Your task to perform on an android device: Open network settings Image 0: 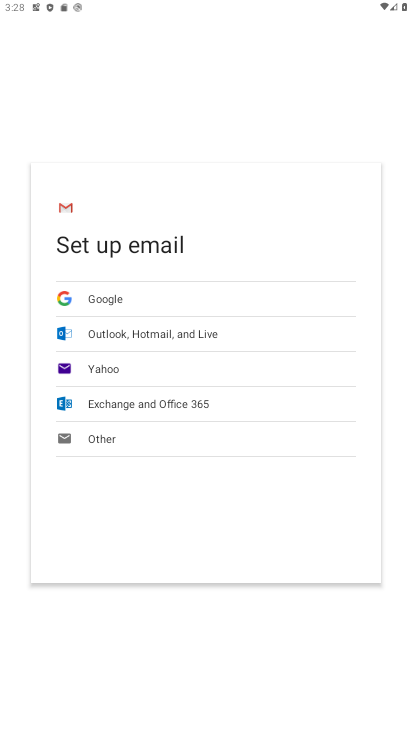
Step 0: press home button
Your task to perform on an android device: Open network settings Image 1: 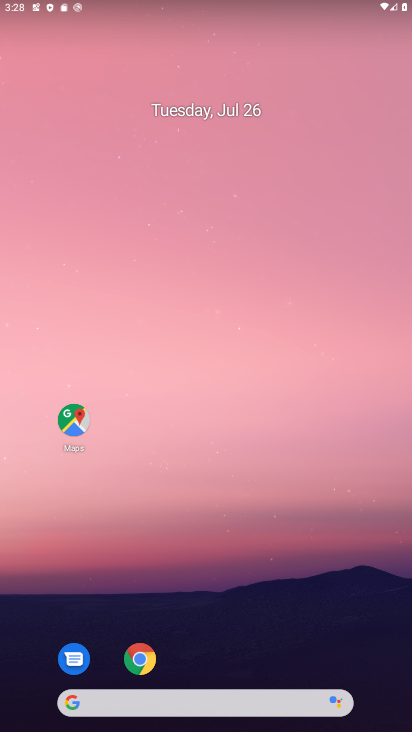
Step 1: drag from (255, 631) to (309, 3)
Your task to perform on an android device: Open network settings Image 2: 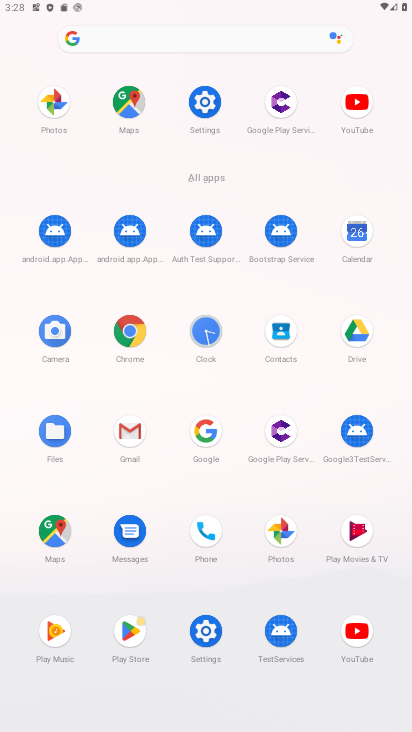
Step 2: click (197, 111)
Your task to perform on an android device: Open network settings Image 3: 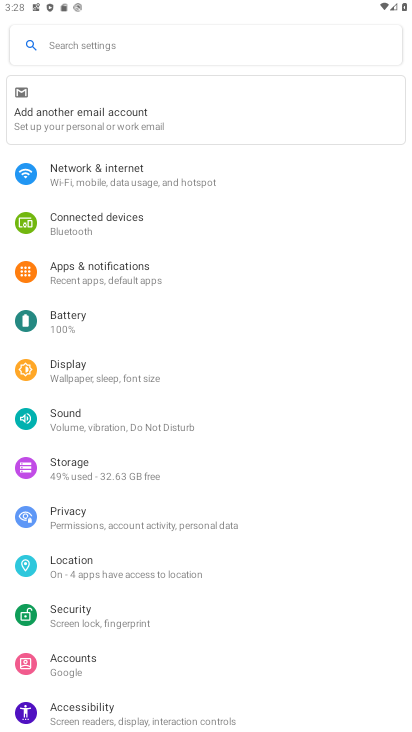
Step 3: click (133, 184)
Your task to perform on an android device: Open network settings Image 4: 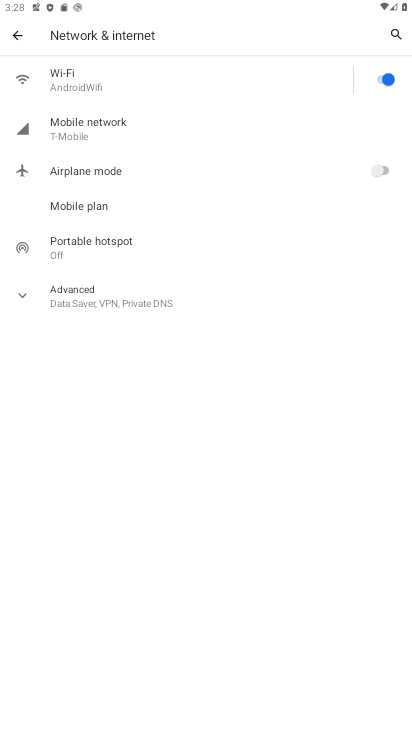
Step 4: click (207, 128)
Your task to perform on an android device: Open network settings Image 5: 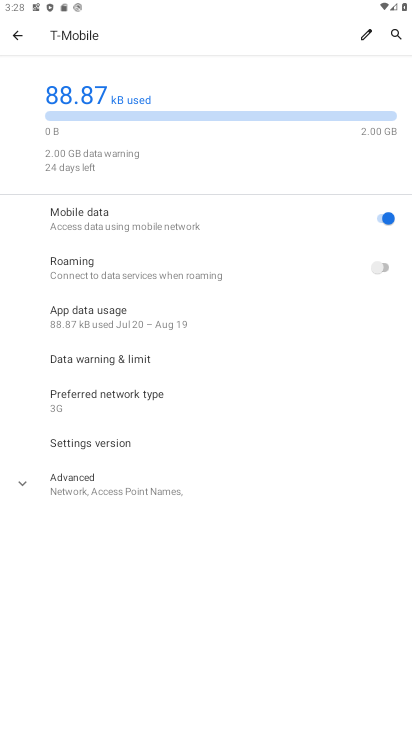
Step 5: task complete